Your task to perform on an android device: Go to Android settings Image 0: 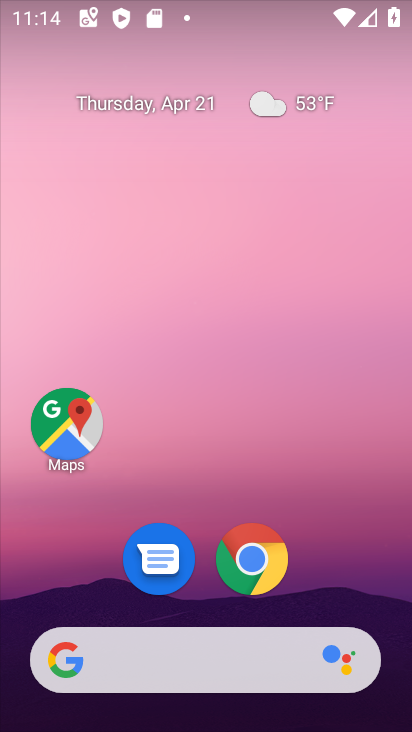
Step 0: drag from (363, 600) to (371, 13)
Your task to perform on an android device: Go to Android settings Image 1: 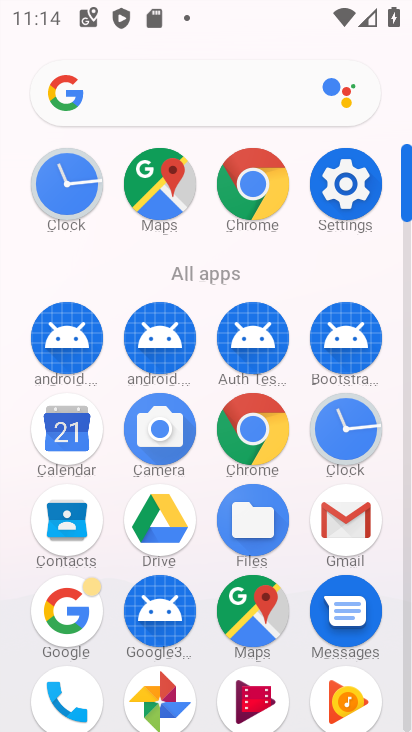
Step 1: click (343, 187)
Your task to perform on an android device: Go to Android settings Image 2: 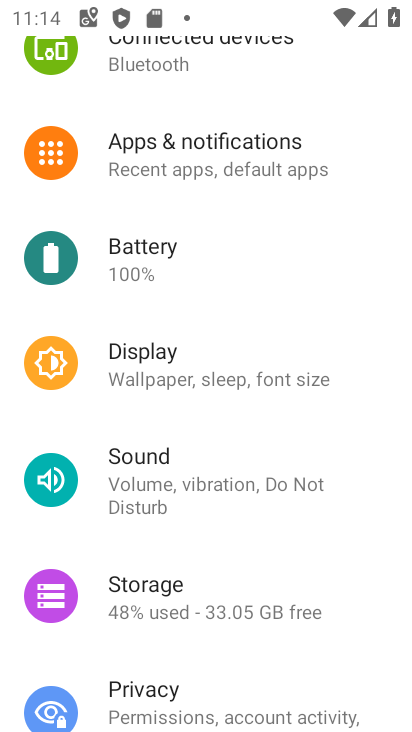
Step 2: task complete